Your task to perform on an android device: check battery use Image 0: 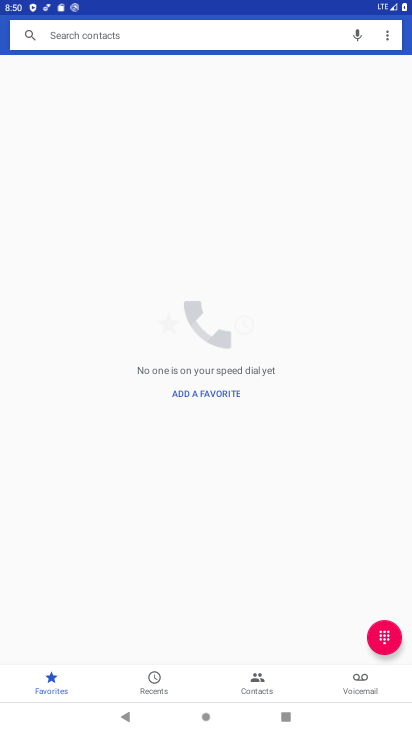
Step 0: press home button
Your task to perform on an android device: check battery use Image 1: 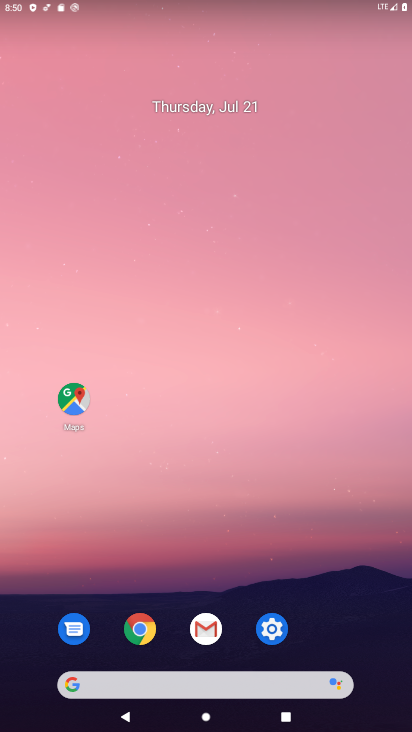
Step 1: click (269, 628)
Your task to perform on an android device: check battery use Image 2: 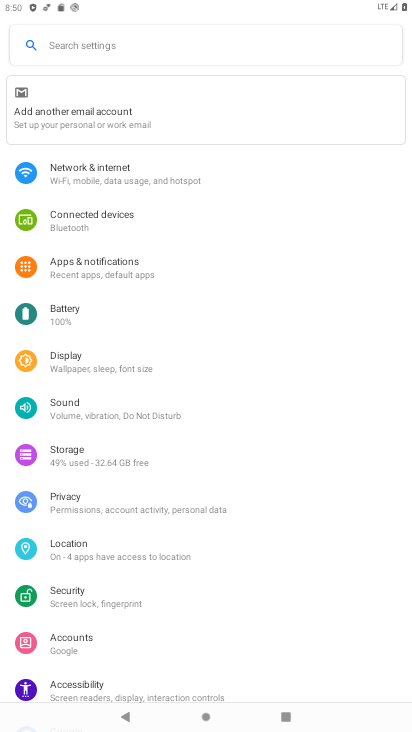
Step 2: click (72, 318)
Your task to perform on an android device: check battery use Image 3: 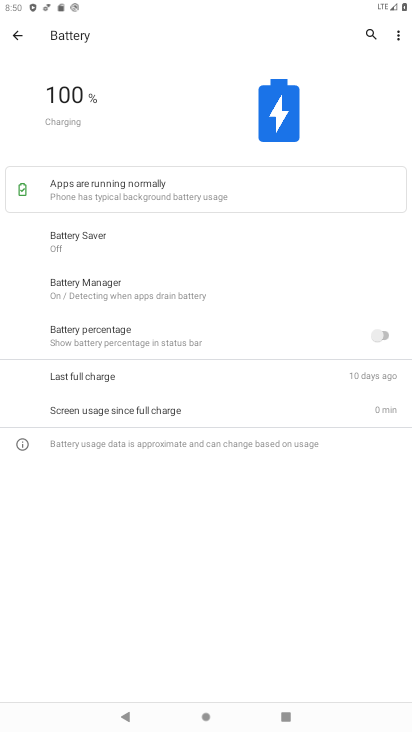
Step 3: click (240, 545)
Your task to perform on an android device: check battery use Image 4: 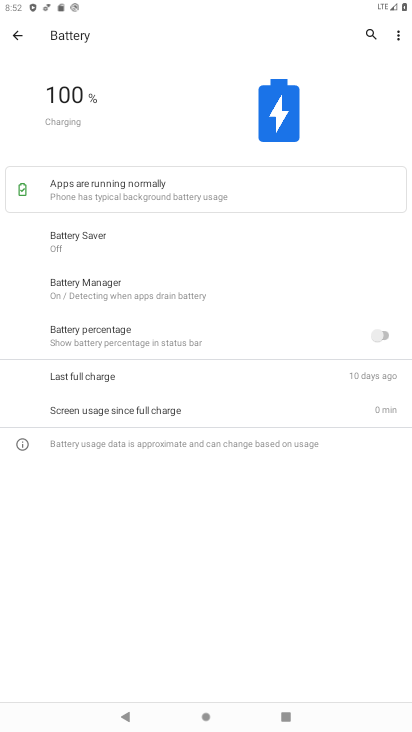
Step 4: task complete